Your task to perform on an android device: open a new tab in the chrome app Image 0: 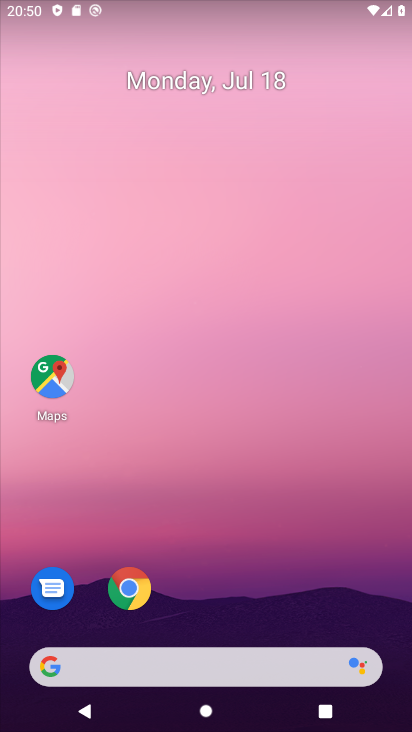
Step 0: press home button
Your task to perform on an android device: open a new tab in the chrome app Image 1: 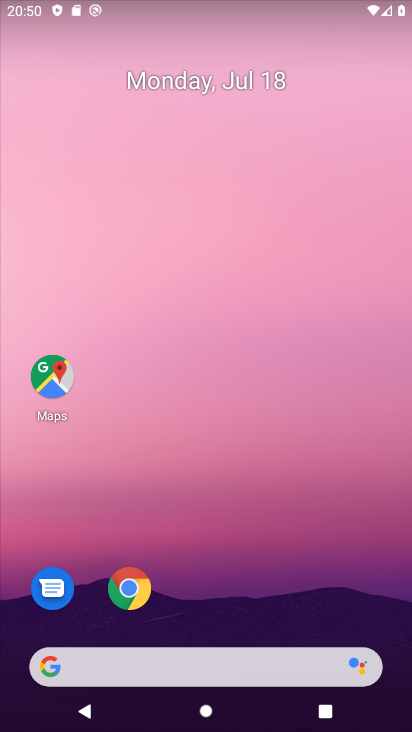
Step 1: click (131, 588)
Your task to perform on an android device: open a new tab in the chrome app Image 2: 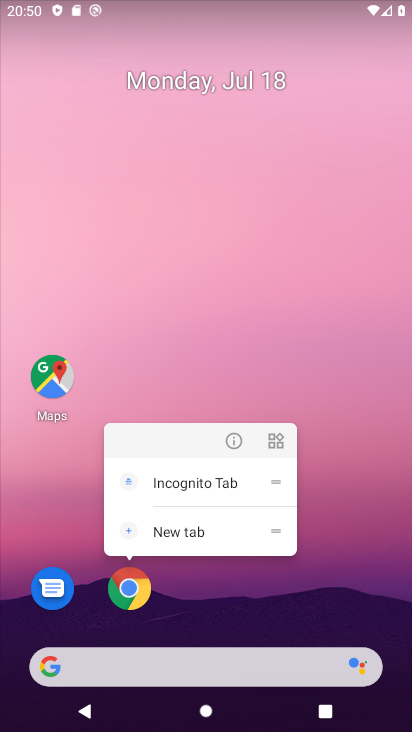
Step 2: click (136, 594)
Your task to perform on an android device: open a new tab in the chrome app Image 3: 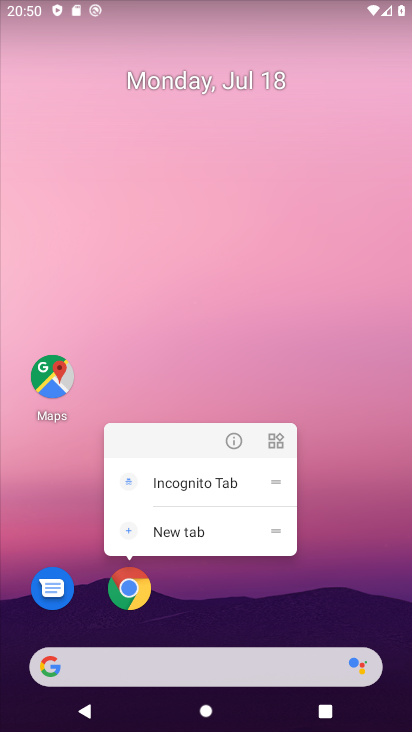
Step 3: click (125, 582)
Your task to perform on an android device: open a new tab in the chrome app Image 4: 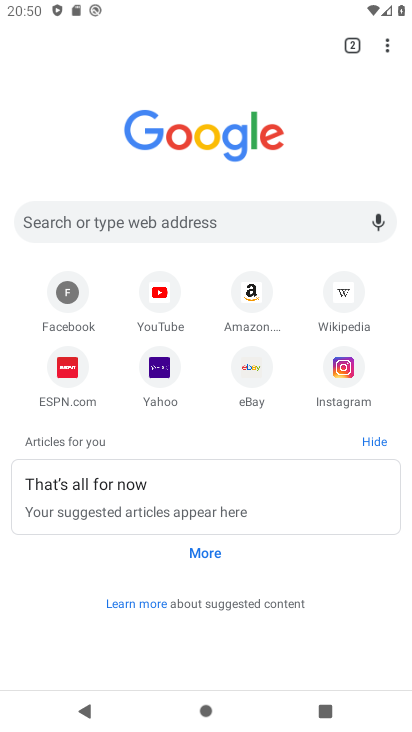
Step 4: task complete